Your task to perform on an android device: turn notification dots off Image 0: 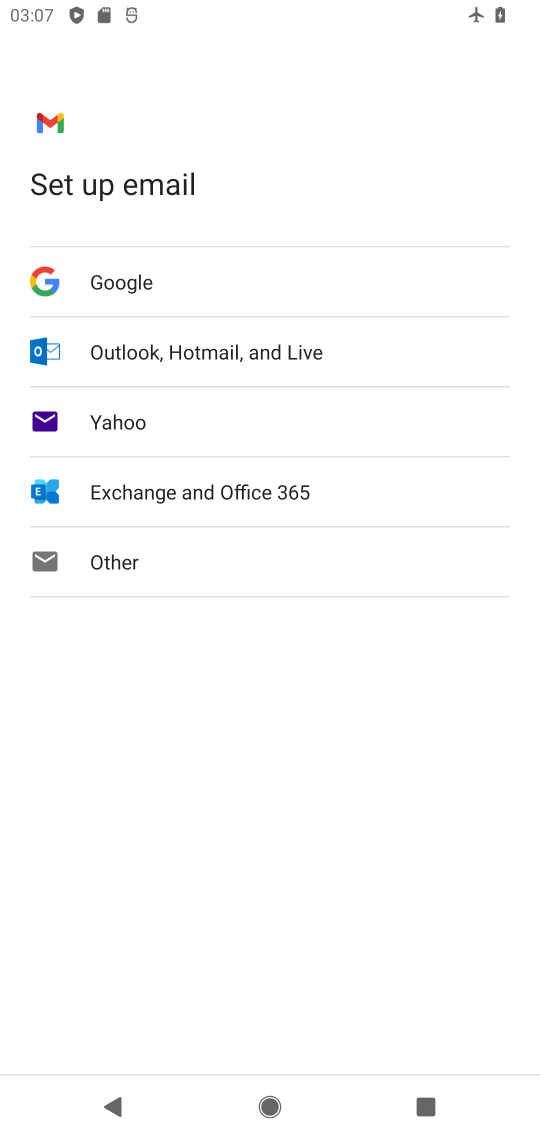
Step 0: press home button
Your task to perform on an android device: turn notification dots off Image 1: 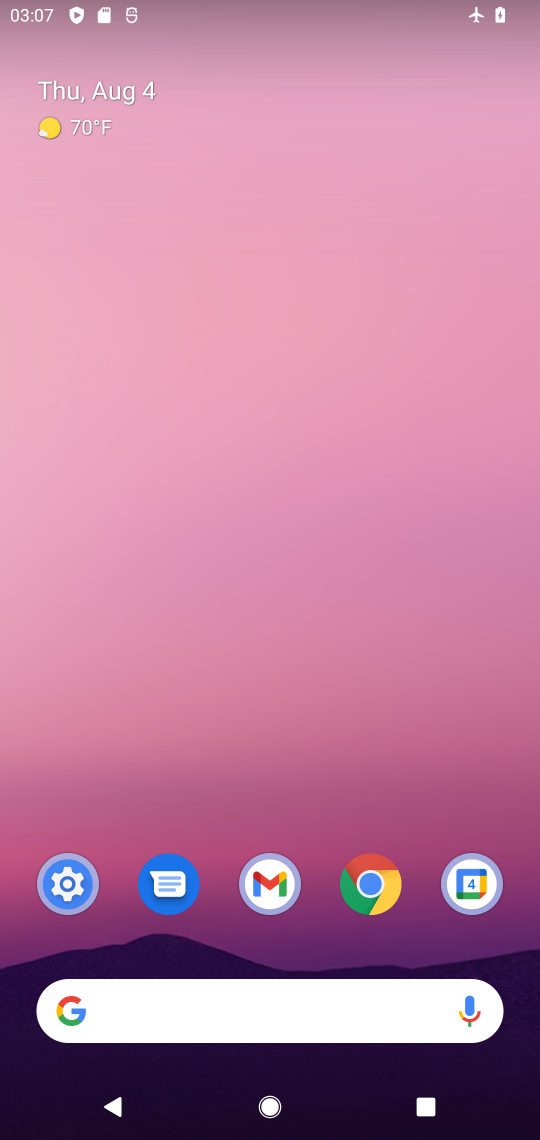
Step 1: drag from (312, 811) to (322, 205)
Your task to perform on an android device: turn notification dots off Image 2: 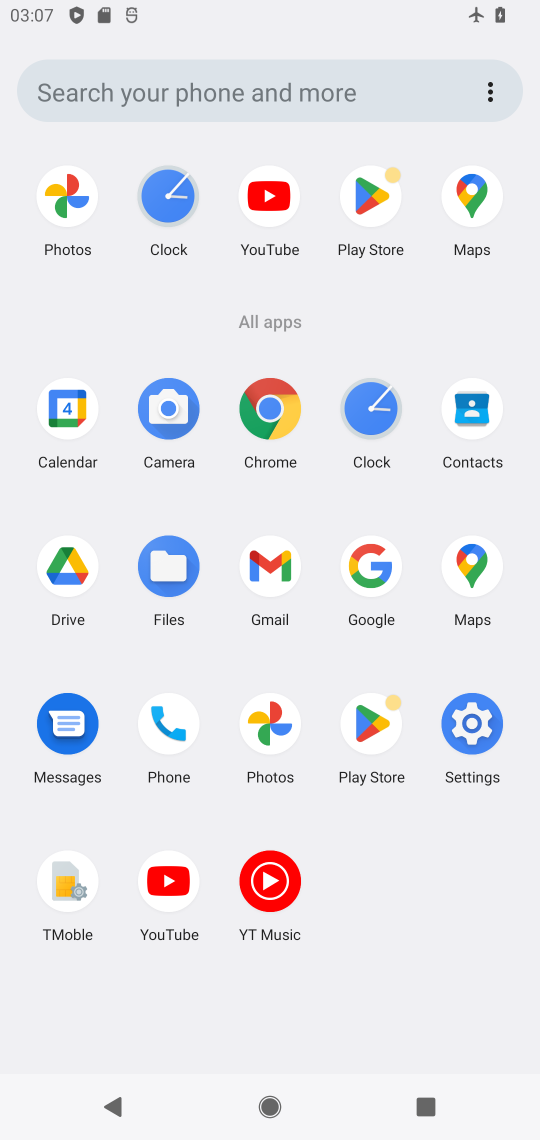
Step 2: click (474, 734)
Your task to perform on an android device: turn notification dots off Image 3: 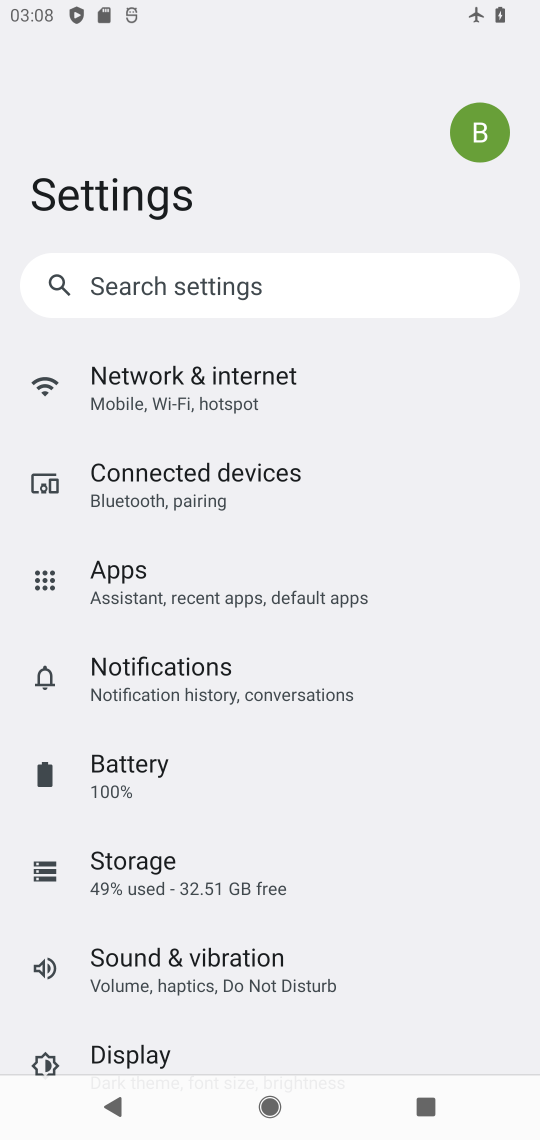
Step 3: drag from (465, 931) to (468, 832)
Your task to perform on an android device: turn notification dots off Image 4: 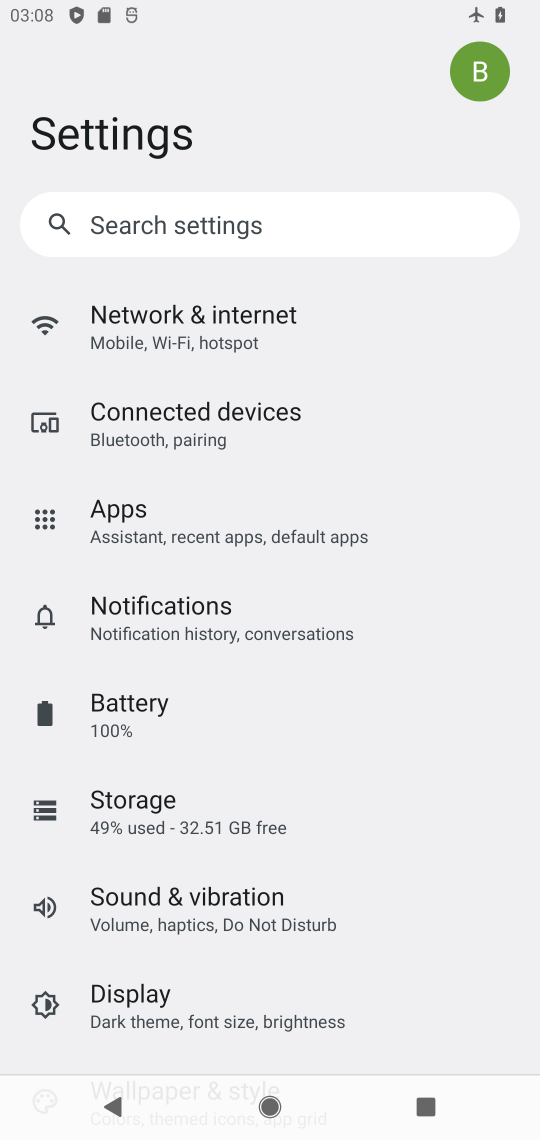
Step 4: drag from (450, 973) to (470, 805)
Your task to perform on an android device: turn notification dots off Image 5: 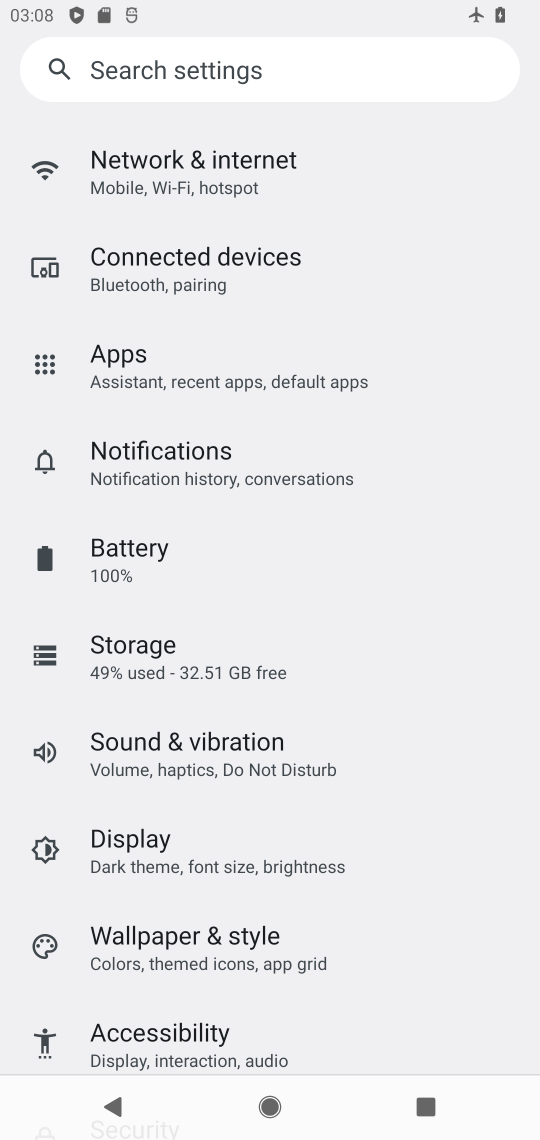
Step 5: drag from (435, 975) to (455, 810)
Your task to perform on an android device: turn notification dots off Image 6: 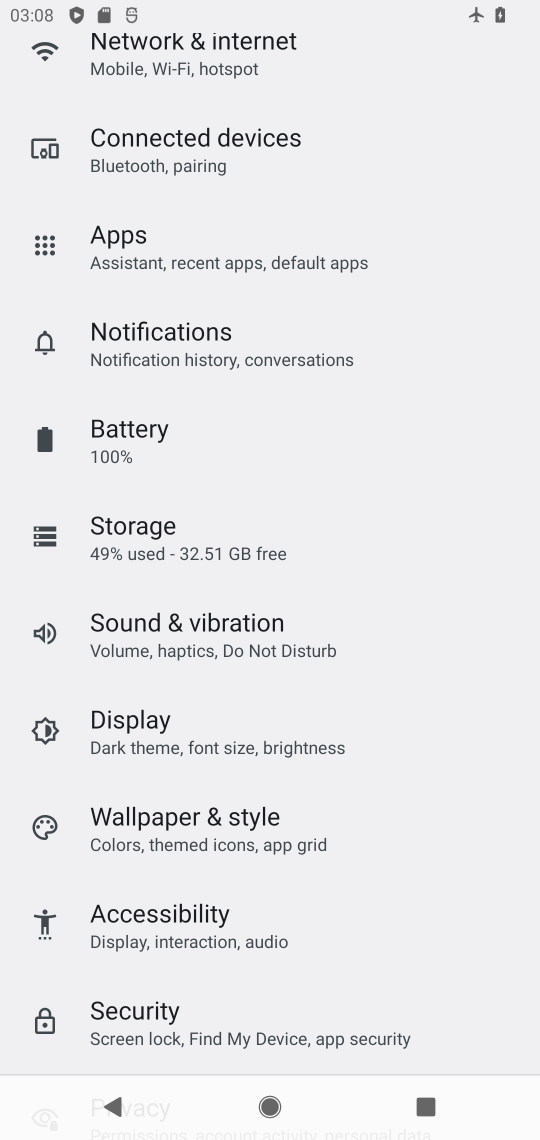
Step 6: drag from (434, 939) to (441, 726)
Your task to perform on an android device: turn notification dots off Image 7: 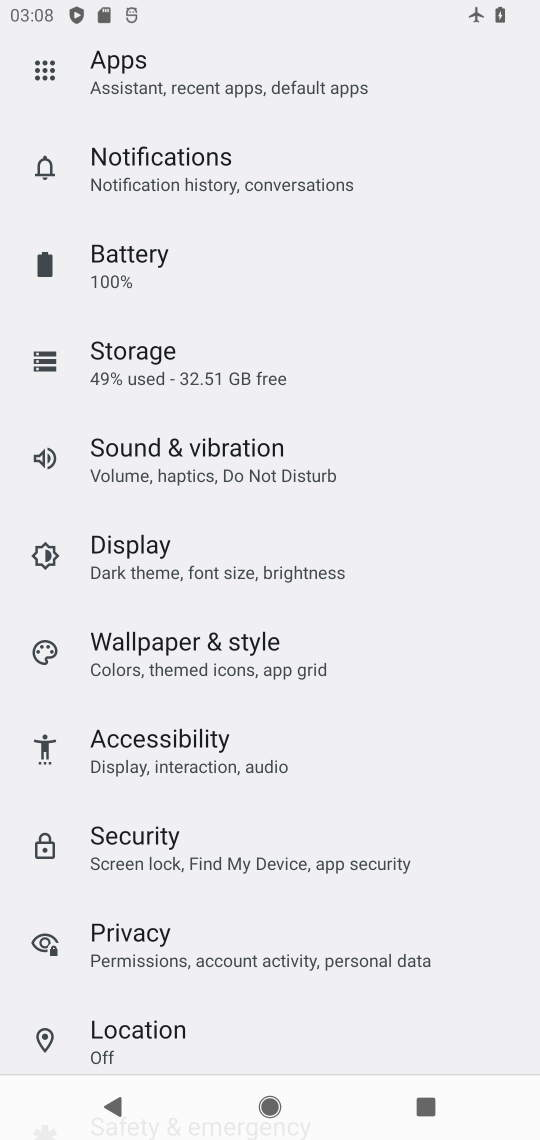
Step 7: drag from (467, 1002) to (494, 781)
Your task to perform on an android device: turn notification dots off Image 8: 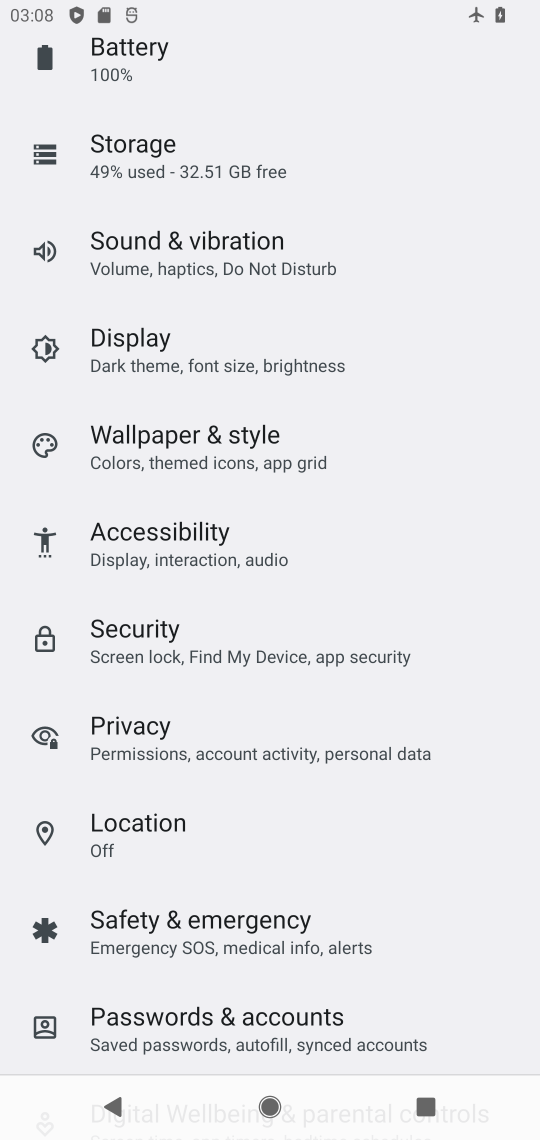
Step 8: drag from (465, 994) to (472, 800)
Your task to perform on an android device: turn notification dots off Image 9: 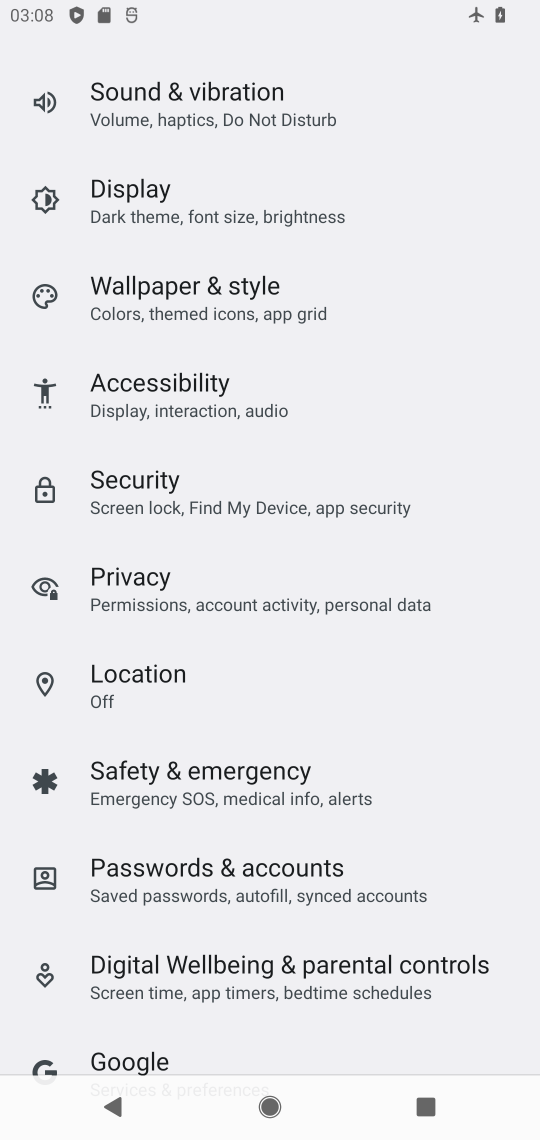
Step 9: drag from (486, 652) to (485, 812)
Your task to perform on an android device: turn notification dots off Image 10: 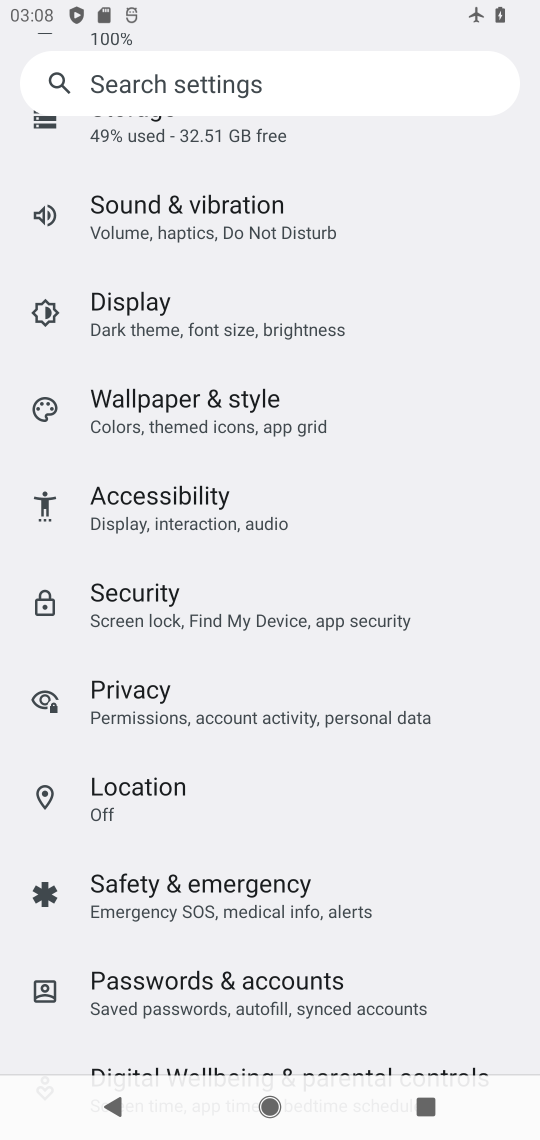
Step 10: drag from (476, 690) to (473, 832)
Your task to perform on an android device: turn notification dots off Image 11: 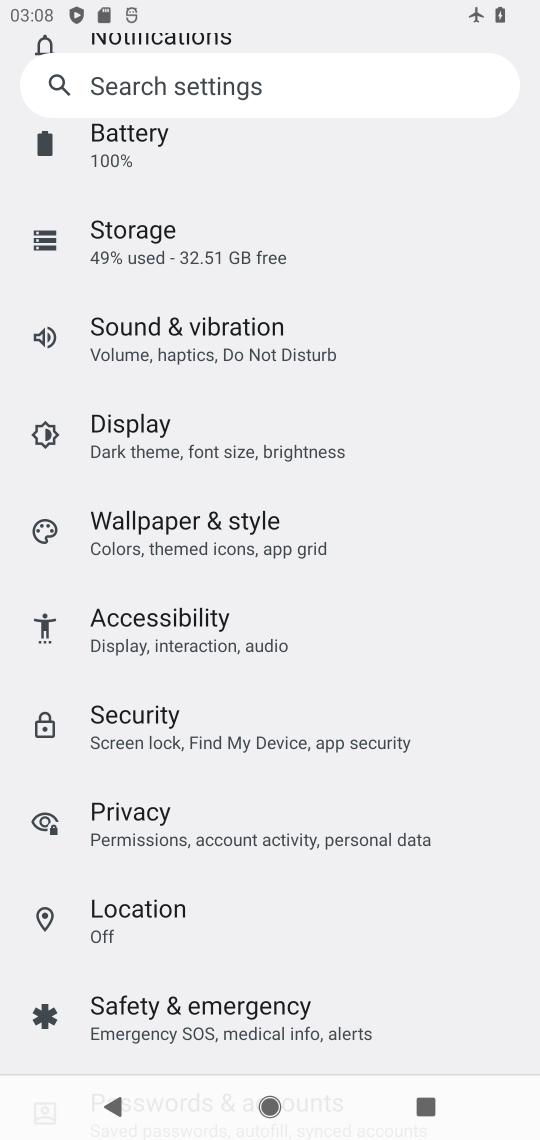
Step 11: drag from (483, 565) to (481, 756)
Your task to perform on an android device: turn notification dots off Image 12: 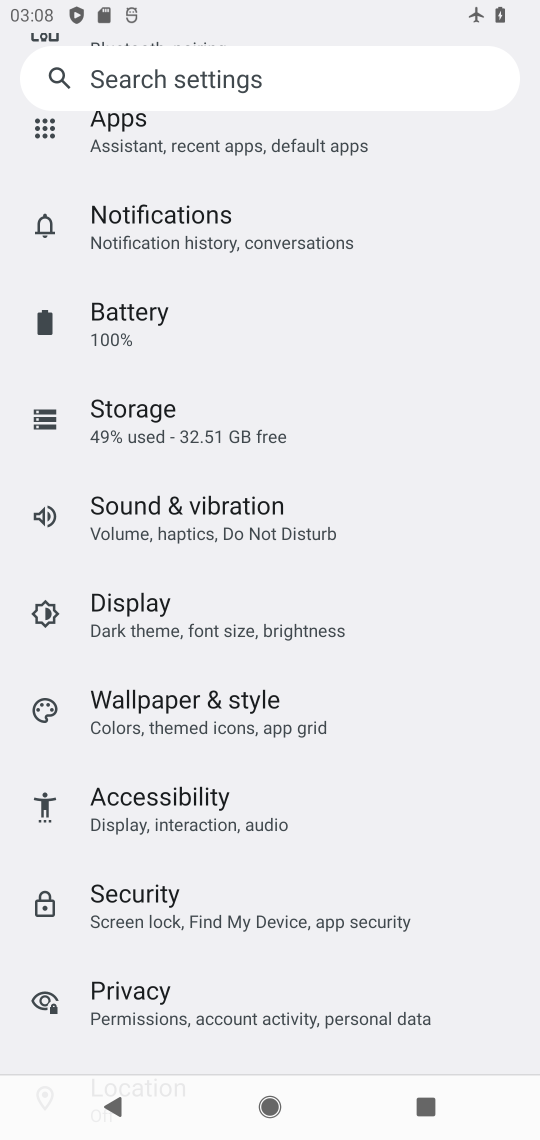
Step 12: drag from (460, 520) to (456, 742)
Your task to perform on an android device: turn notification dots off Image 13: 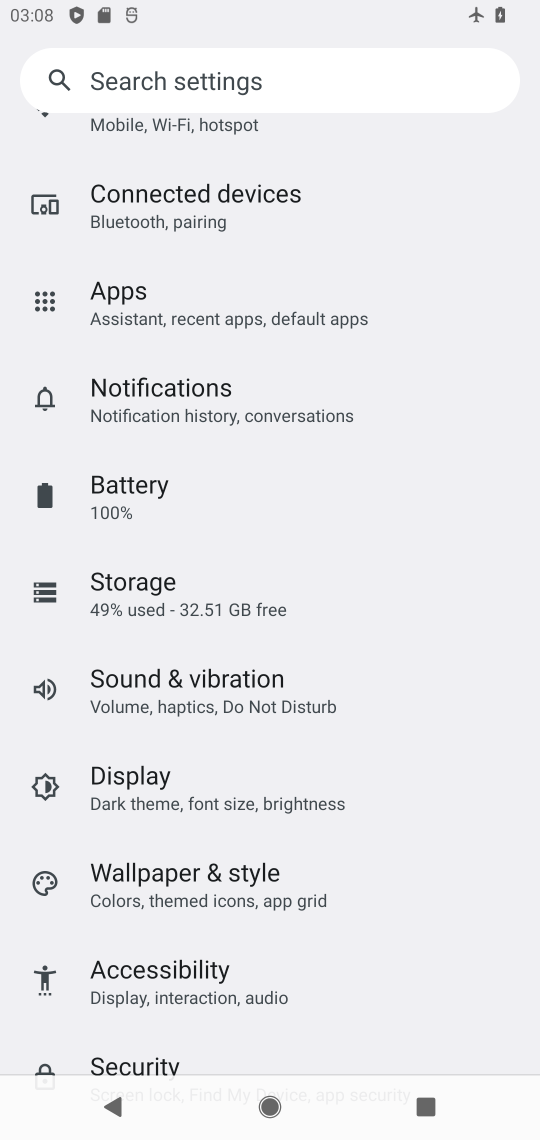
Step 13: drag from (453, 444) to (455, 741)
Your task to perform on an android device: turn notification dots off Image 14: 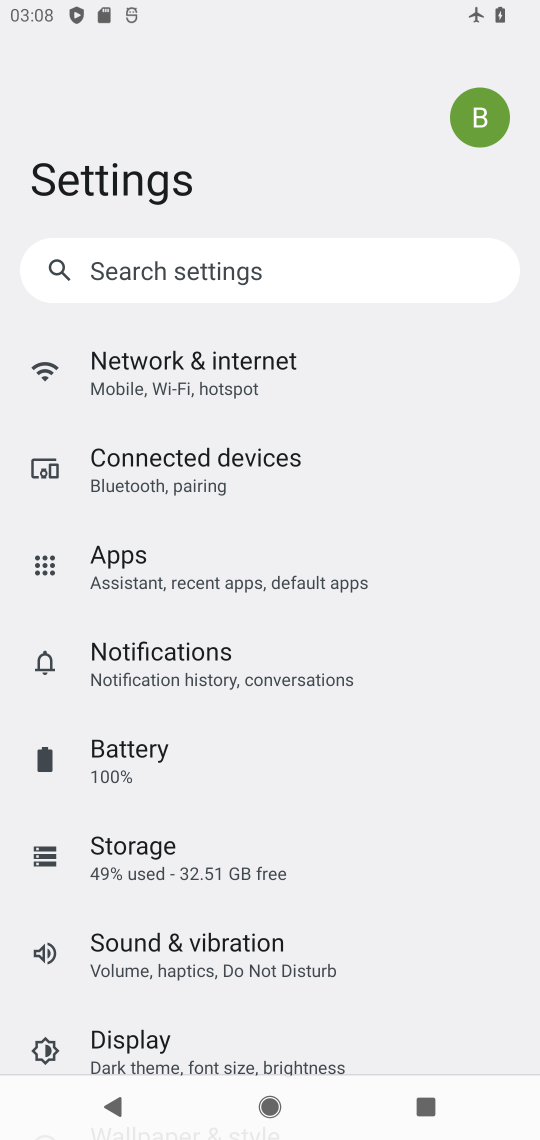
Step 14: click (345, 654)
Your task to perform on an android device: turn notification dots off Image 15: 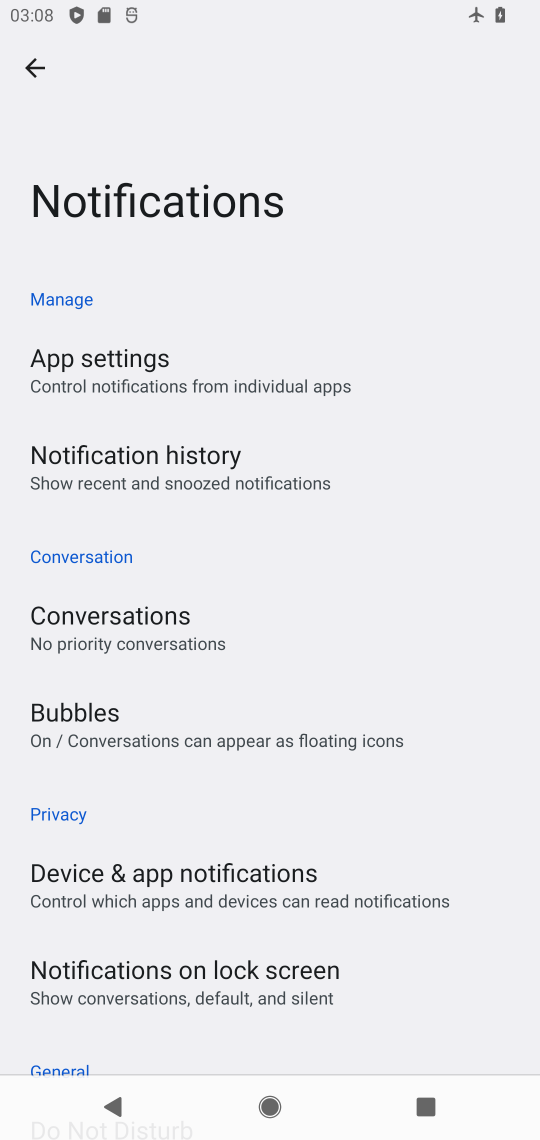
Step 15: drag from (438, 777) to (456, 662)
Your task to perform on an android device: turn notification dots off Image 16: 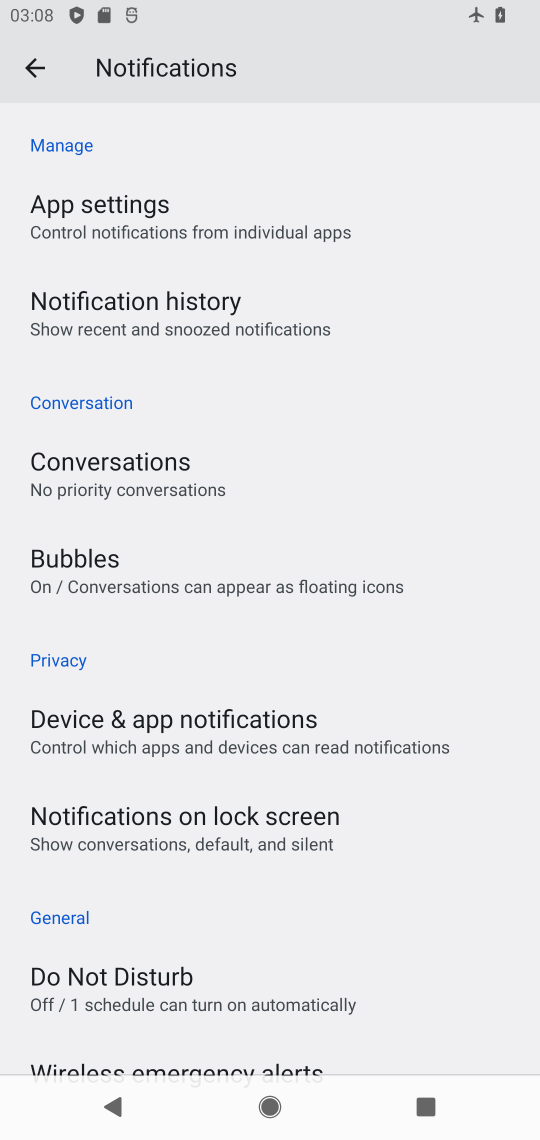
Step 16: drag from (454, 947) to (453, 758)
Your task to perform on an android device: turn notification dots off Image 17: 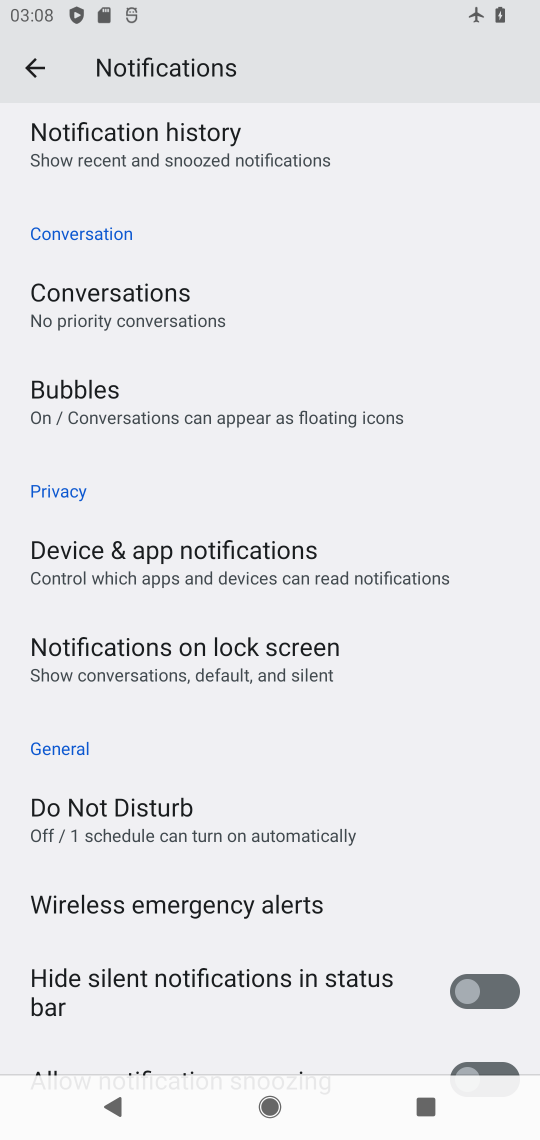
Step 17: drag from (412, 959) to (432, 743)
Your task to perform on an android device: turn notification dots off Image 18: 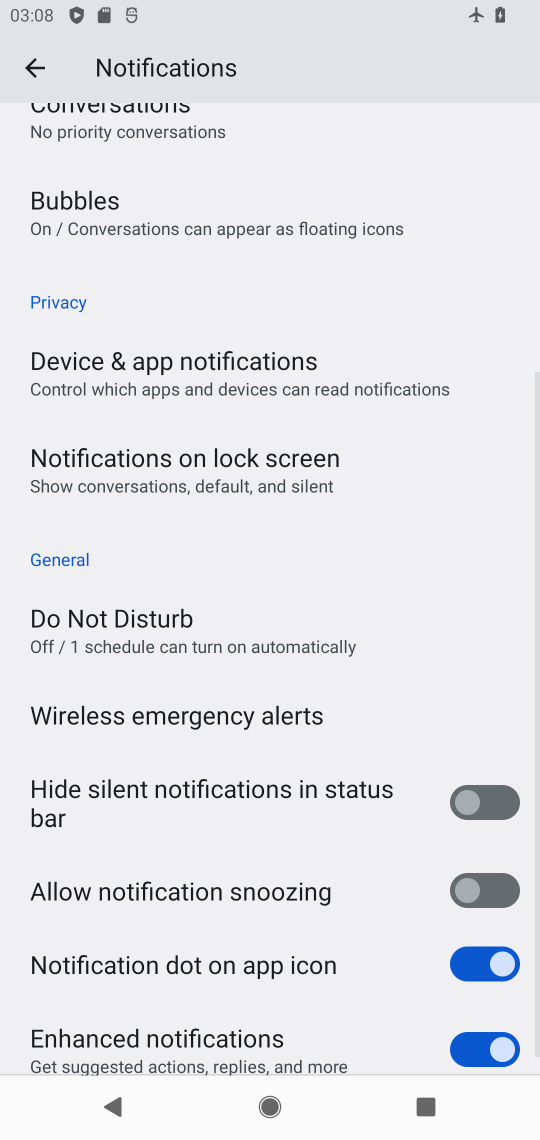
Step 18: drag from (387, 986) to (411, 762)
Your task to perform on an android device: turn notification dots off Image 19: 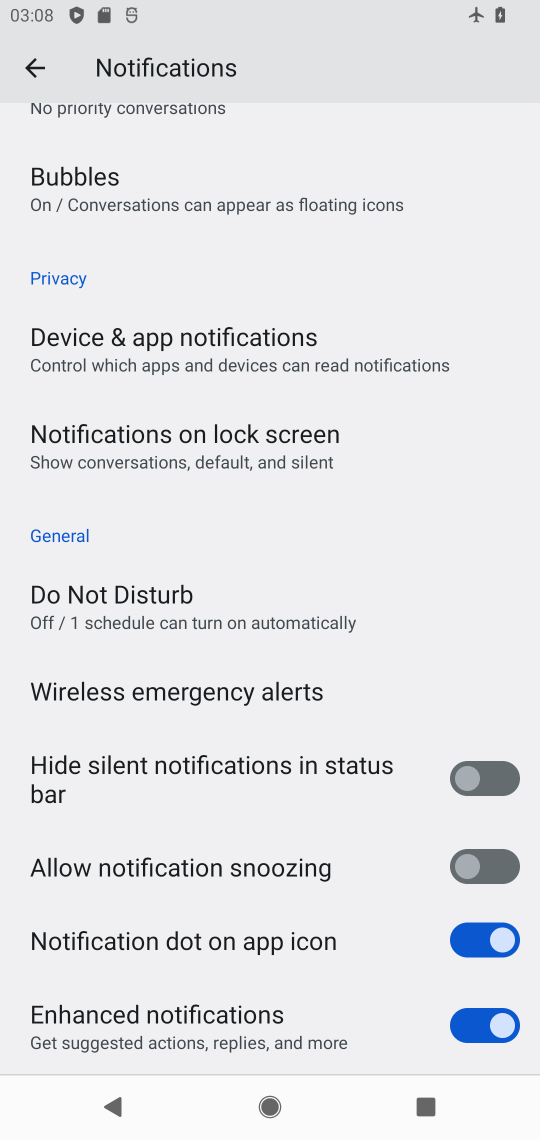
Step 19: click (494, 934)
Your task to perform on an android device: turn notification dots off Image 20: 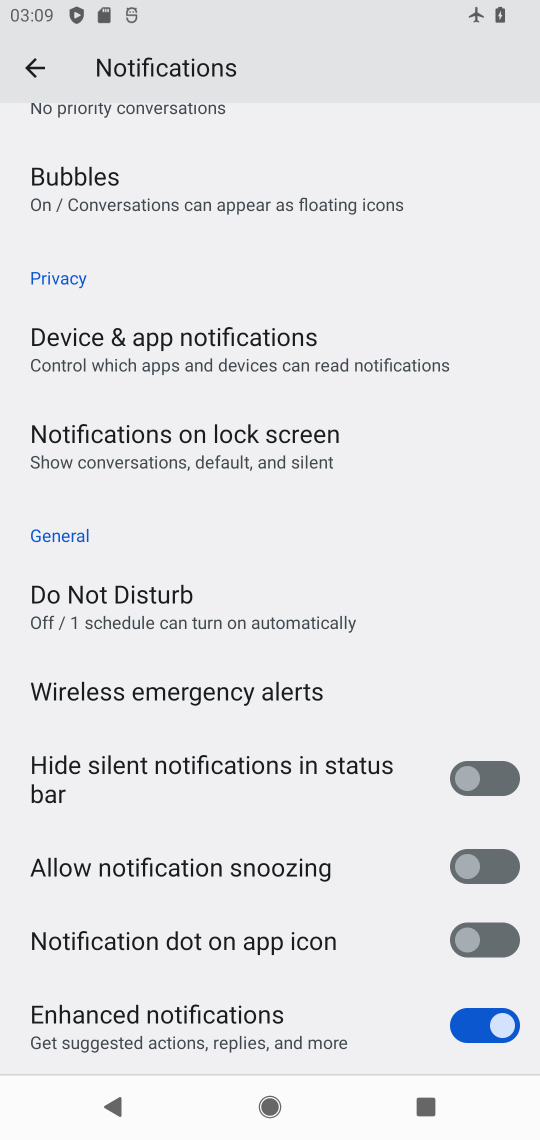
Step 20: task complete